Your task to perform on an android device: Go to Android settings Image 0: 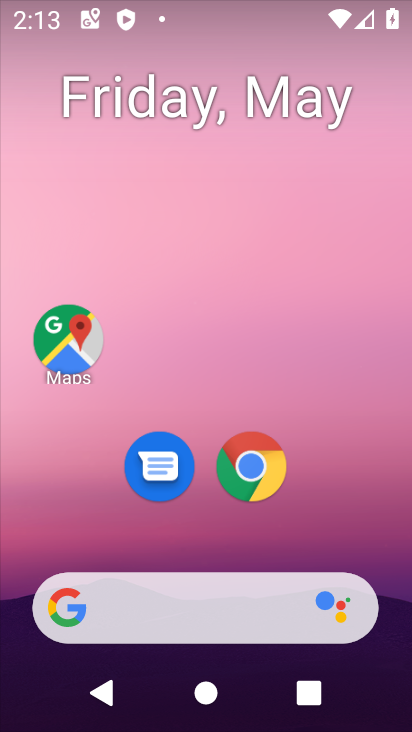
Step 0: drag from (165, 529) to (273, 32)
Your task to perform on an android device: Go to Android settings Image 1: 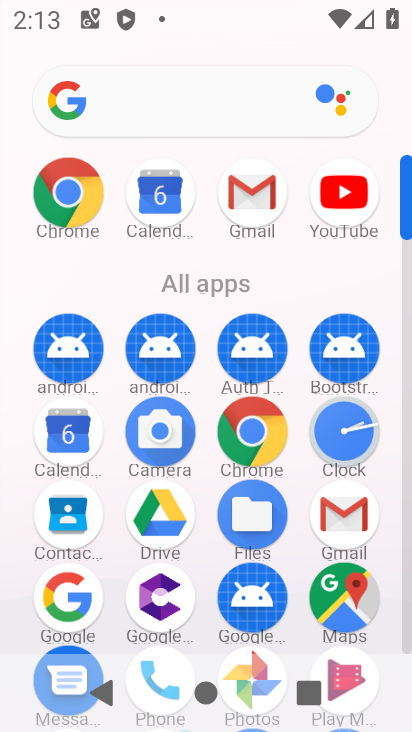
Step 1: drag from (170, 579) to (266, 133)
Your task to perform on an android device: Go to Android settings Image 2: 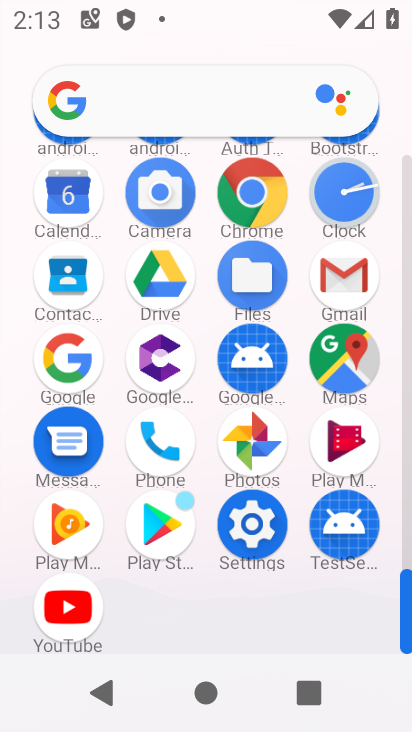
Step 2: click (260, 544)
Your task to perform on an android device: Go to Android settings Image 3: 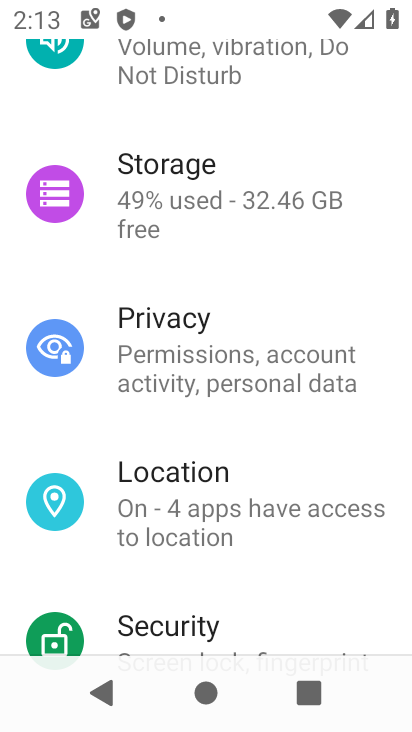
Step 3: drag from (234, 318) to (308, 41)
Your task to perform on an android device: Go to Android settings Image 4: 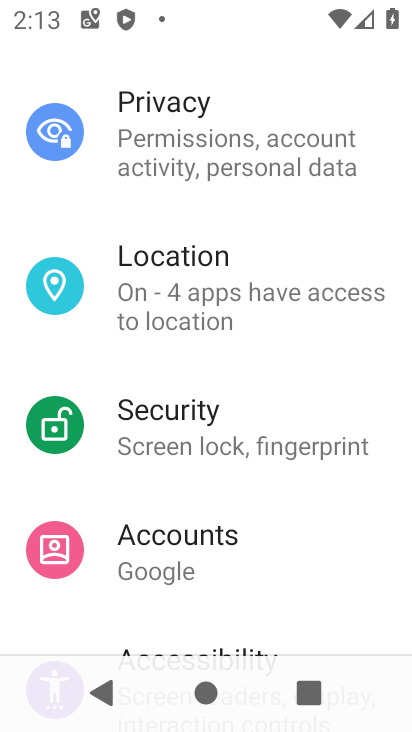
Step 4: drag from (198, 615) to (300, 55)
Your task to perform on an android device: Go to Android settings Image 5: 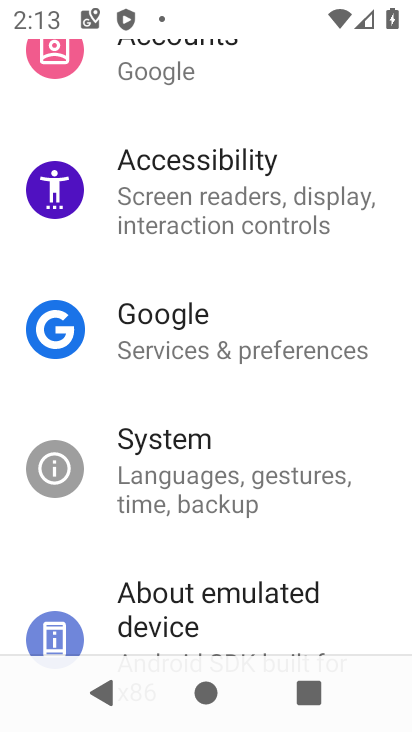
Step 5: drag from (211, 550) to (259, 145)
Your task to perform on an android device: Go to Android settings Image 6: 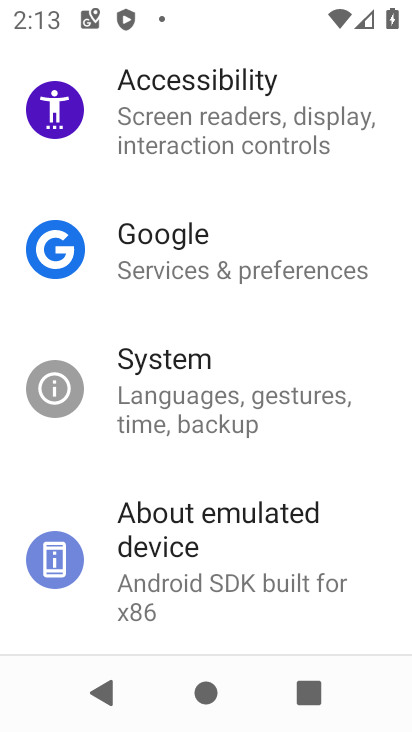
Step 6: click (208, 554)
Your task to perform on an android device: Go to Android settings Image 7: 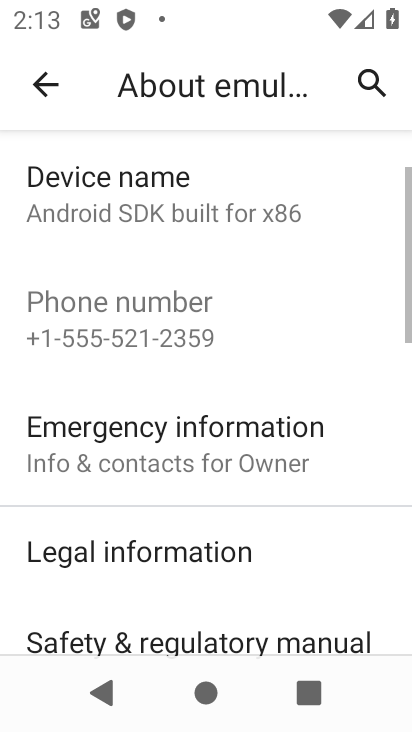
Step 7: drag from (184, 629) to (291, 138)
Your task to perform on an android device: Go to Android settings Image 8: 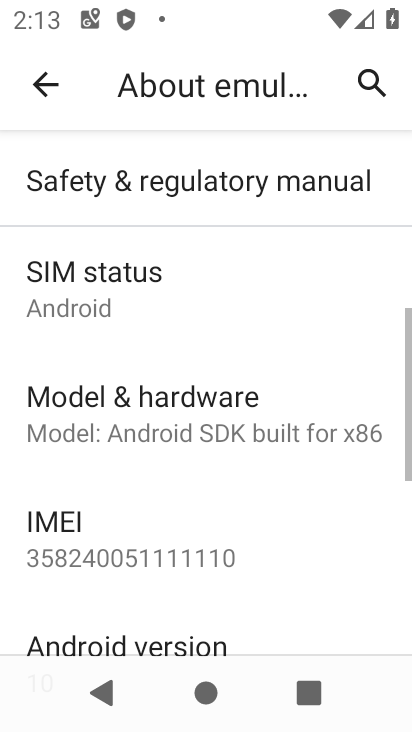
Step 8: click (105, 642)
Your task to perform on an android device: Go to Android settings Image 9: 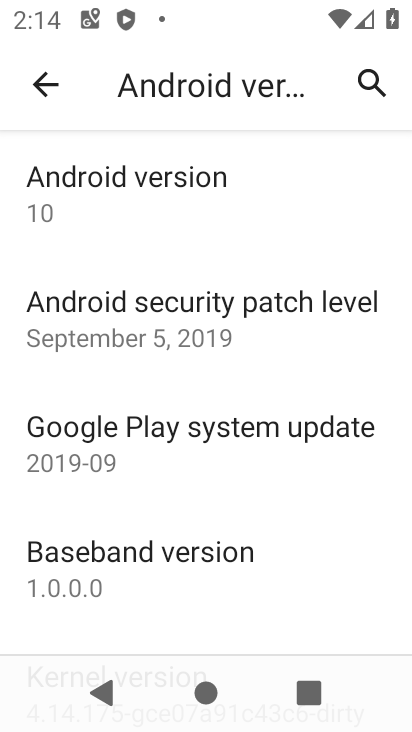
Step 9: task complete